Your task to perform on an android device: find photos in the google photos app Image 0: 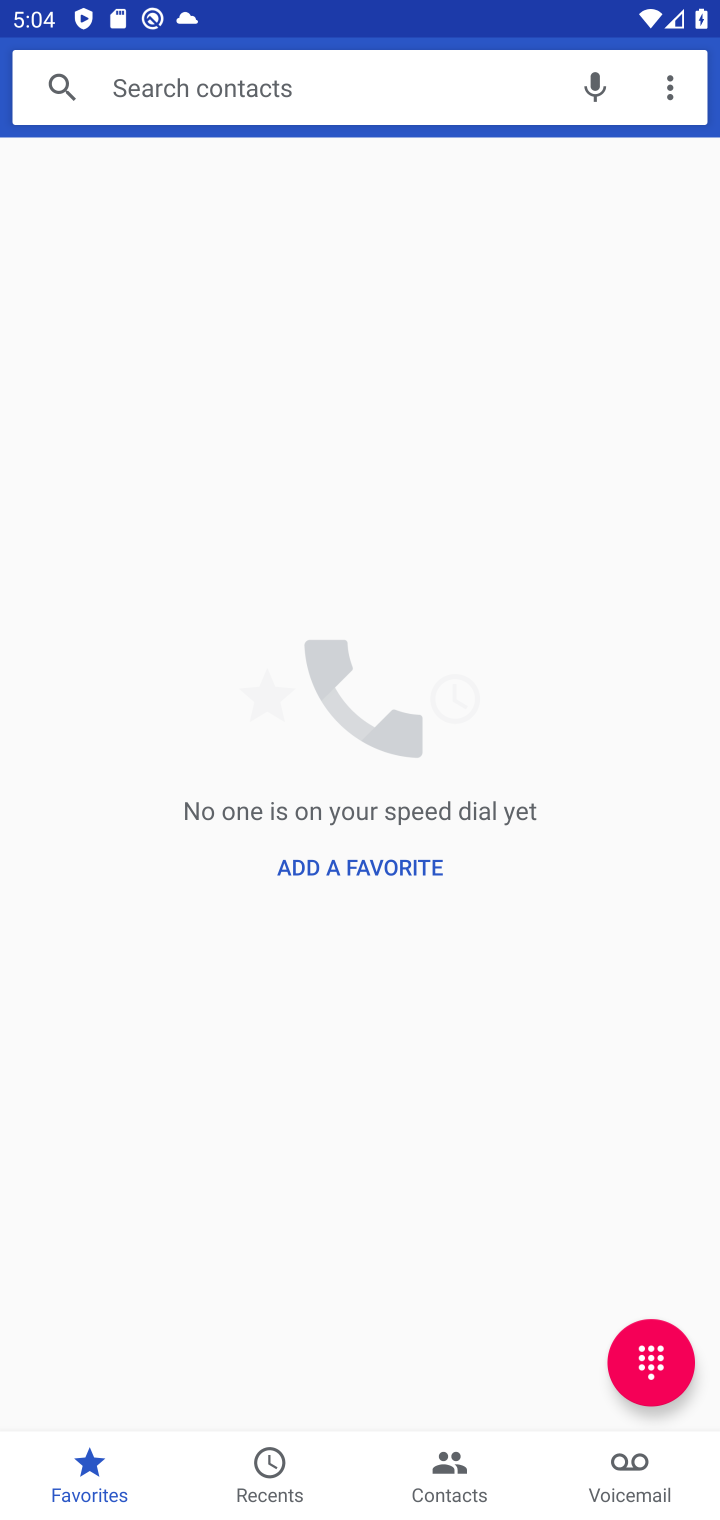
Step 0: press back button
Your task to perform on an android device: find photos in the google photos app Image 1: 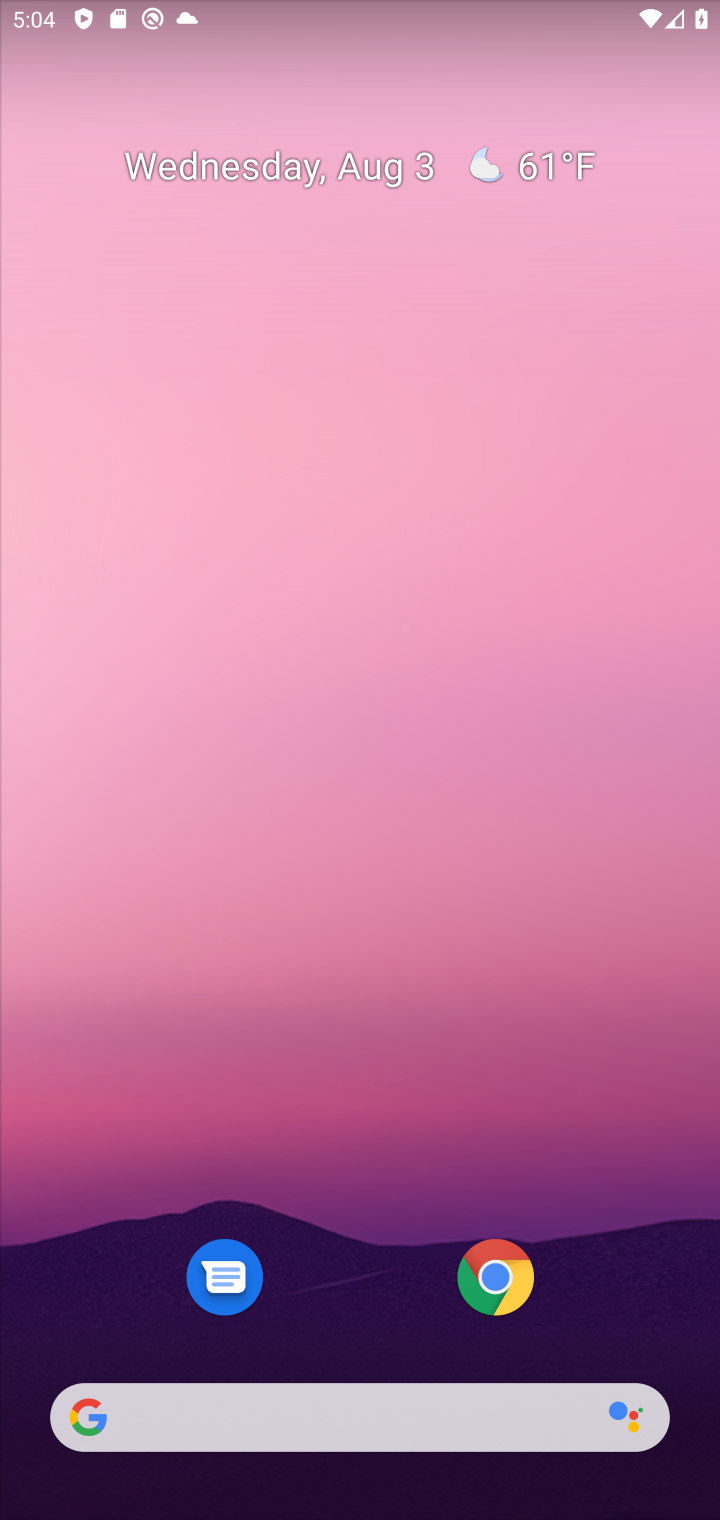
Step 1: drag from (239, 1283) to (463, 80)
Your task to perform on an android device: find photos in the google photos app Image 2: 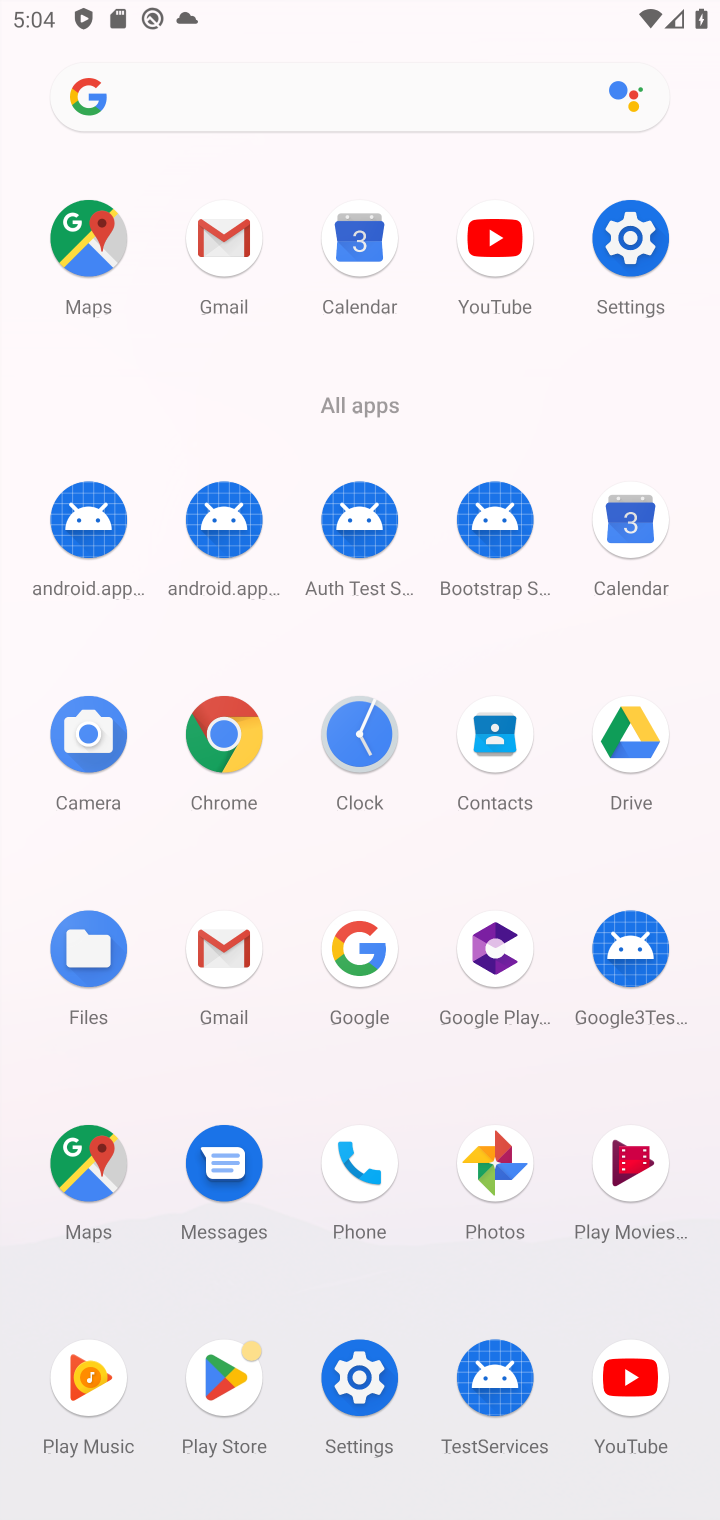
Step 2: click (101, 1156)
Your task to perform on an android device: find photos in the google photos app Image 3: 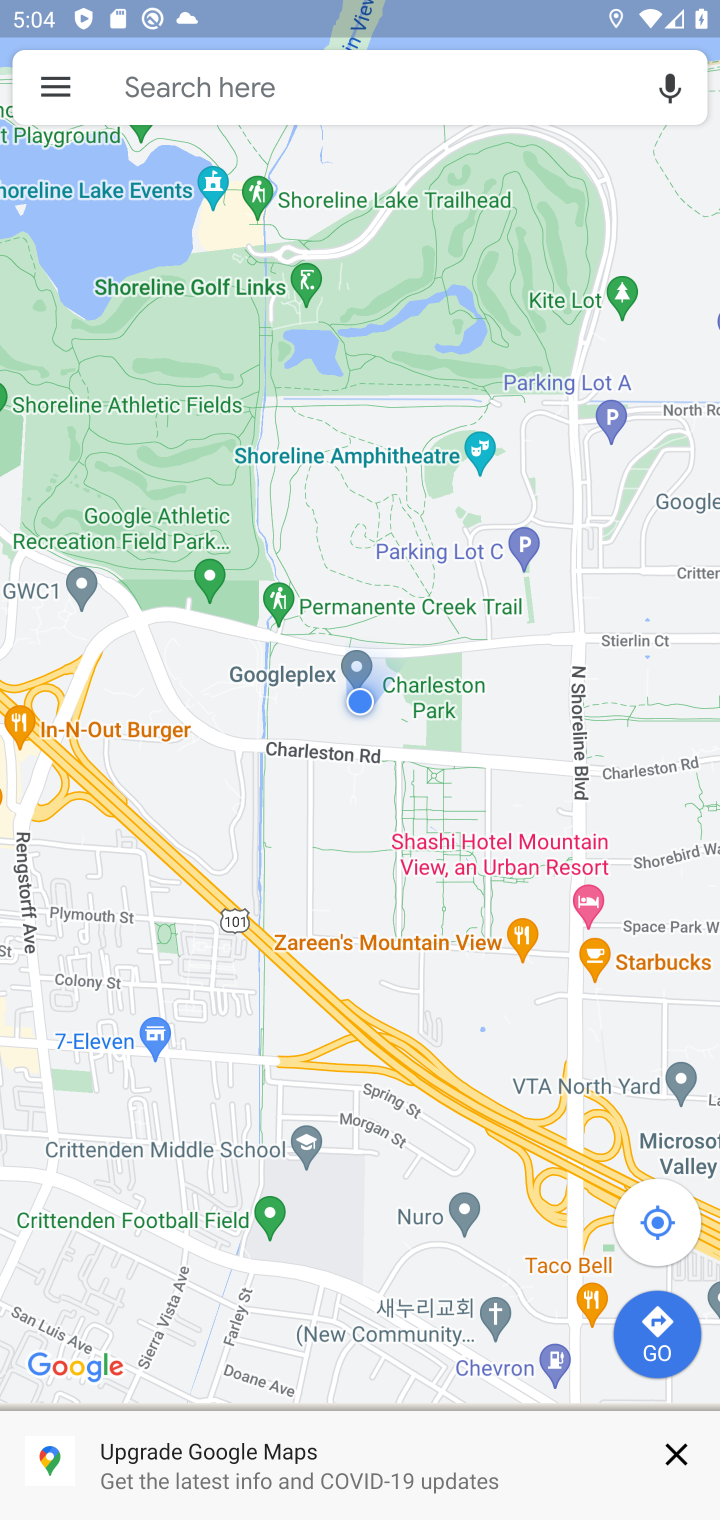
Step 3: press back button
Your task to perform on an android device: find photos in the google photos app Image 4: 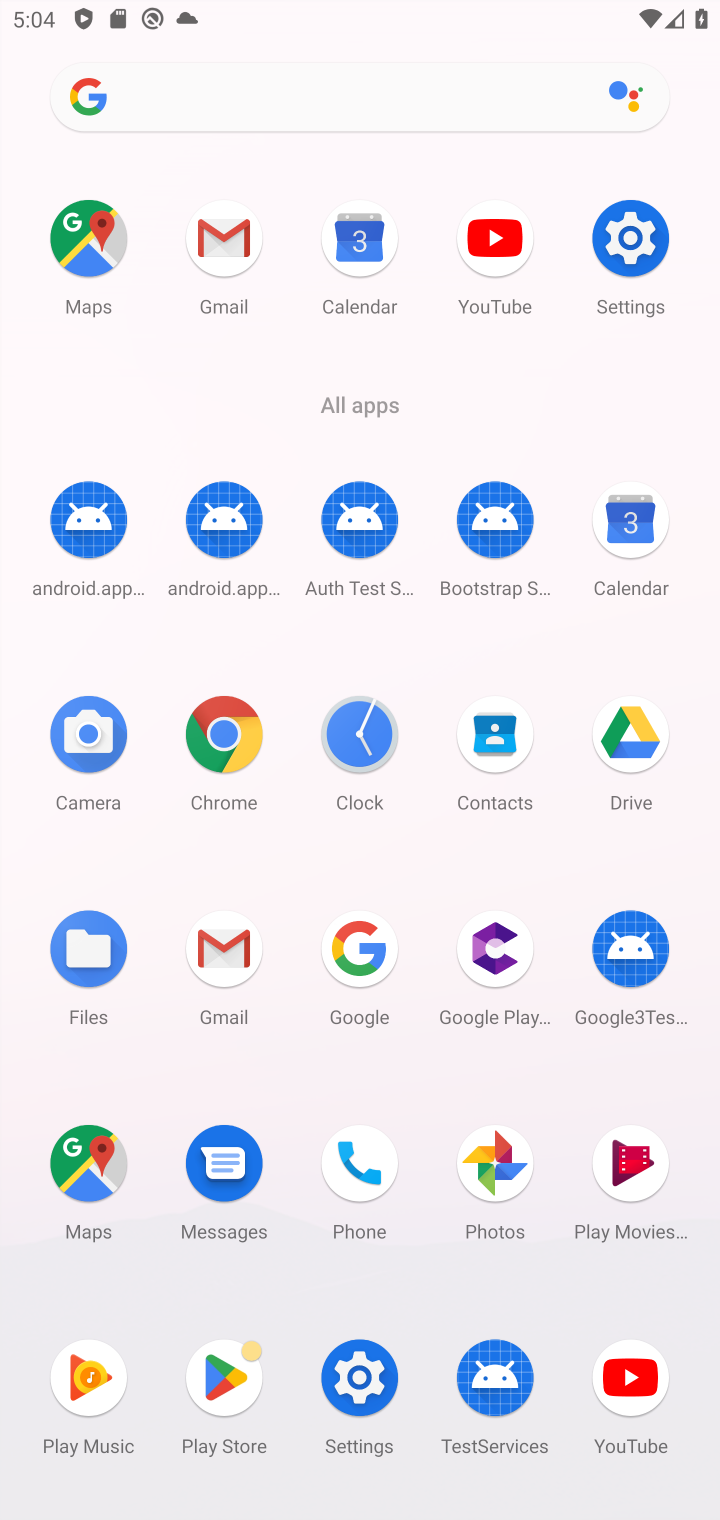
Step 4: click (486, 1158)
Your task to perform on an android device: find photos in the google photos app Image 5: 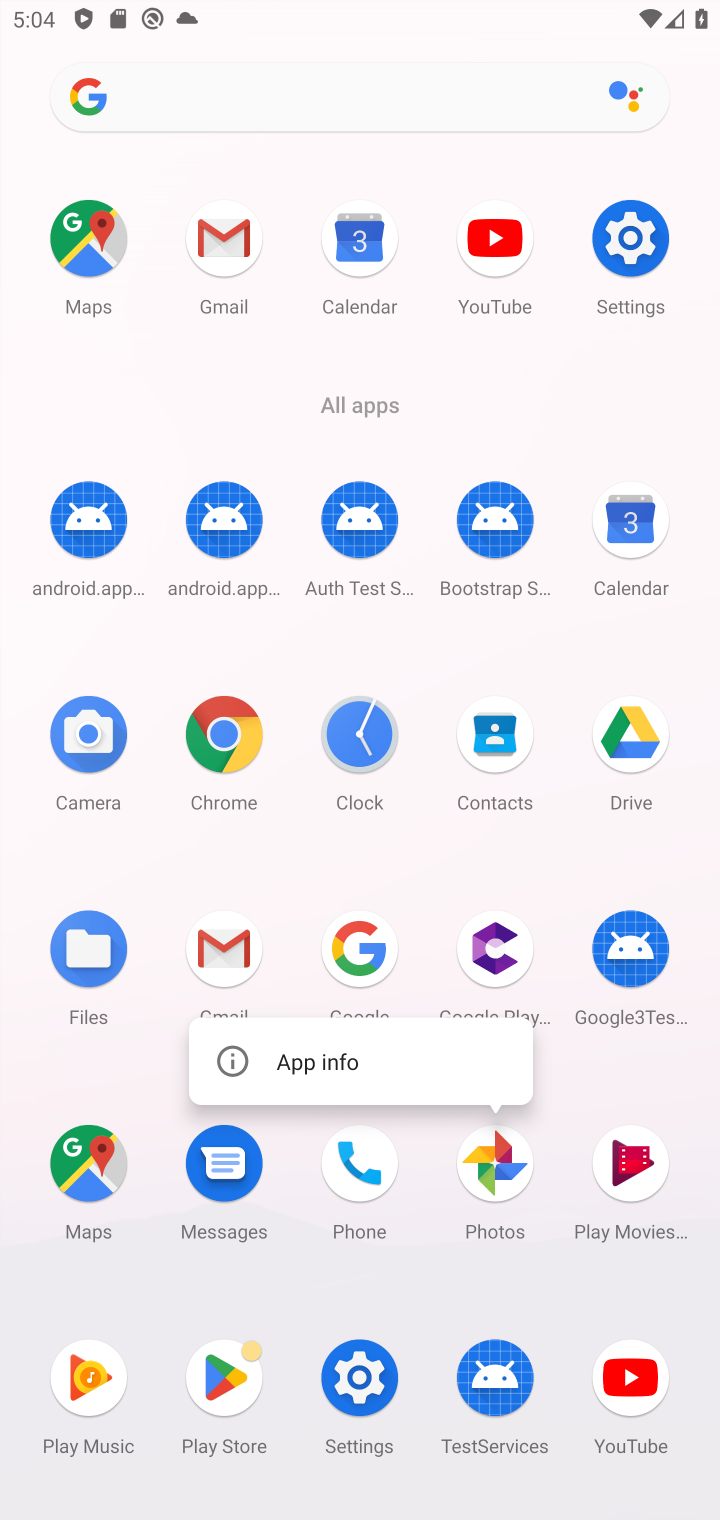
Step 5: click (477, 1156)
Your task to perform on an android device: find photos in the google photos app Image 6: 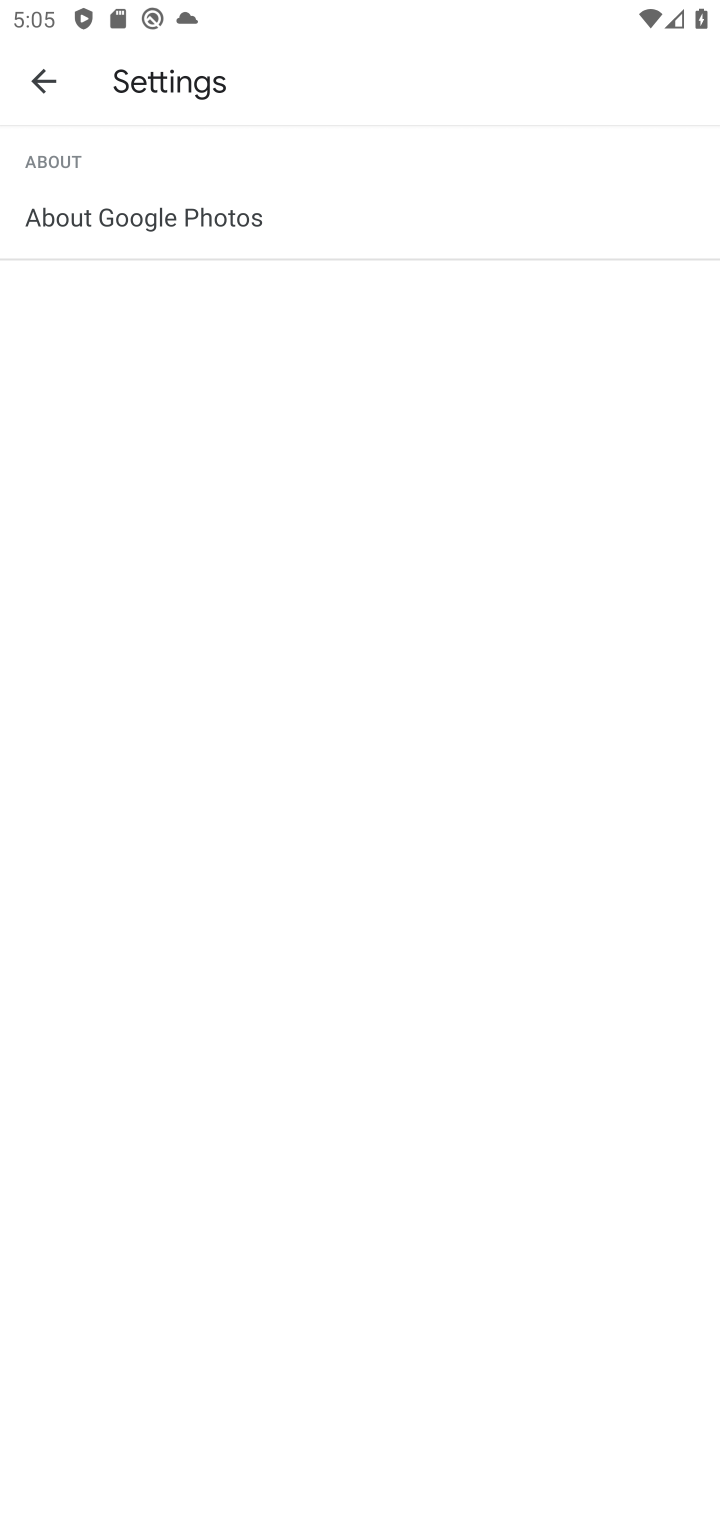
Step 6: click (44, 68)
Your task to perform on an android device: find photos in the google photos app Image 7: 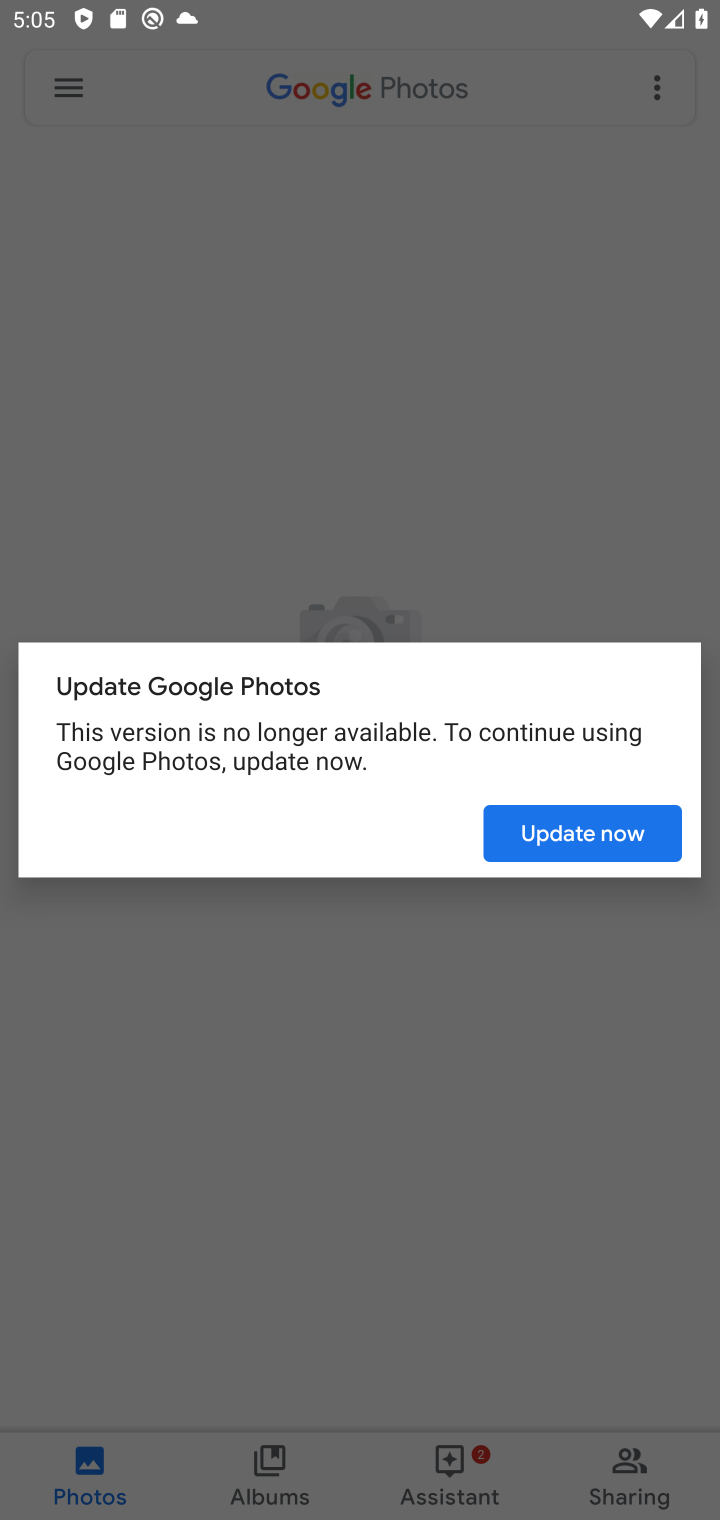
Step 7: click (584, 816)
Your task to perform on an android device: find photos in the google photos app Image 8: 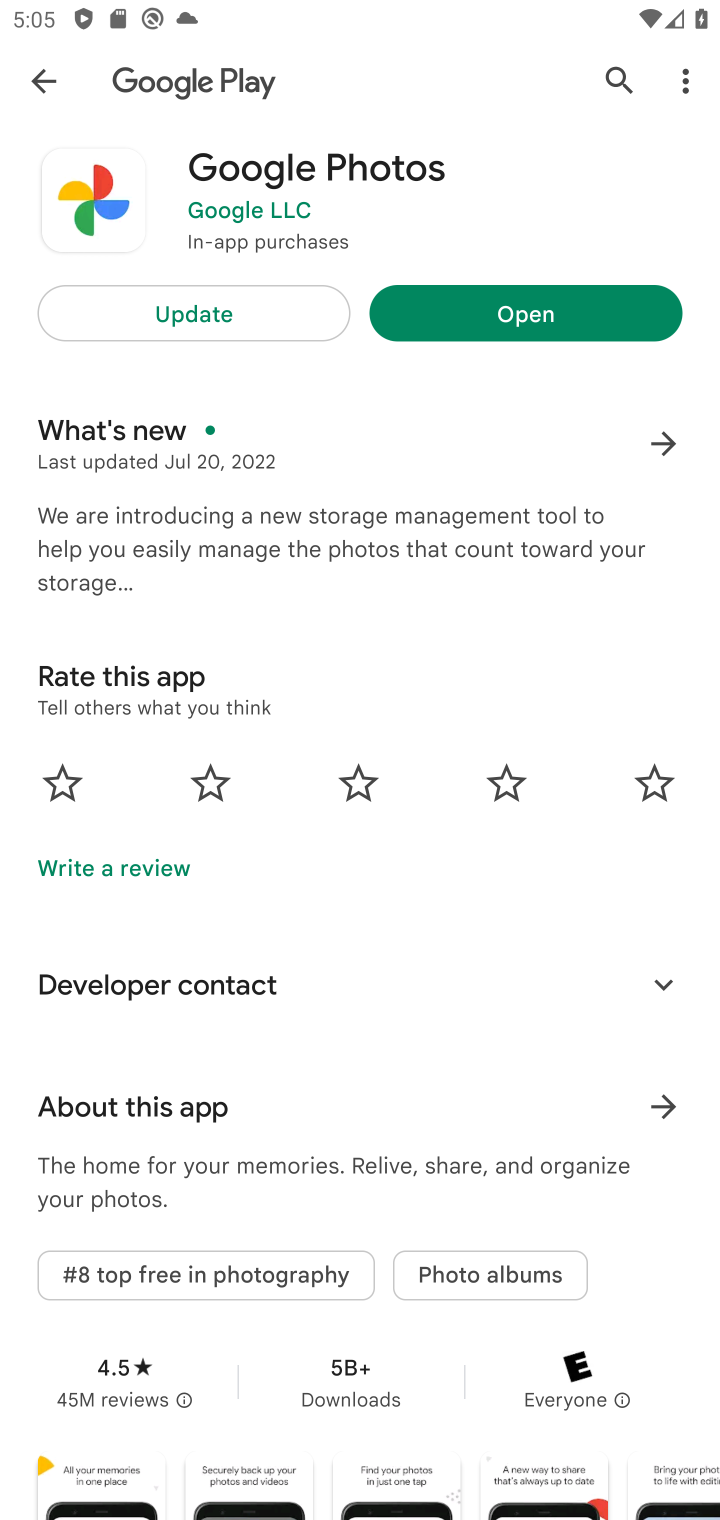
Step 8: click (502, 309)
Your task to perform on an android device: find photos in the google photos app Image 9: 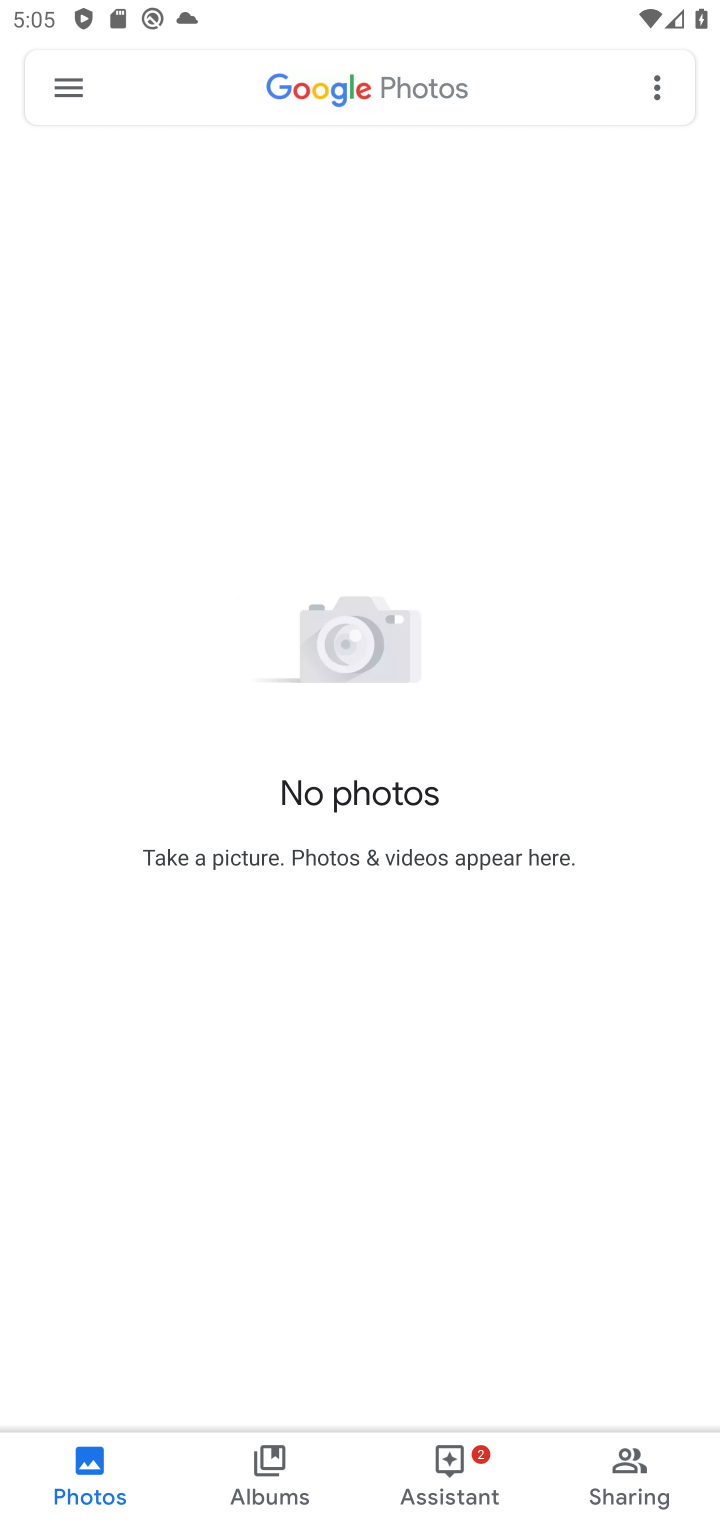
Step 9: click (94, 1466)
Your task to perform on an android device: find photos in the google photos app Image 10: 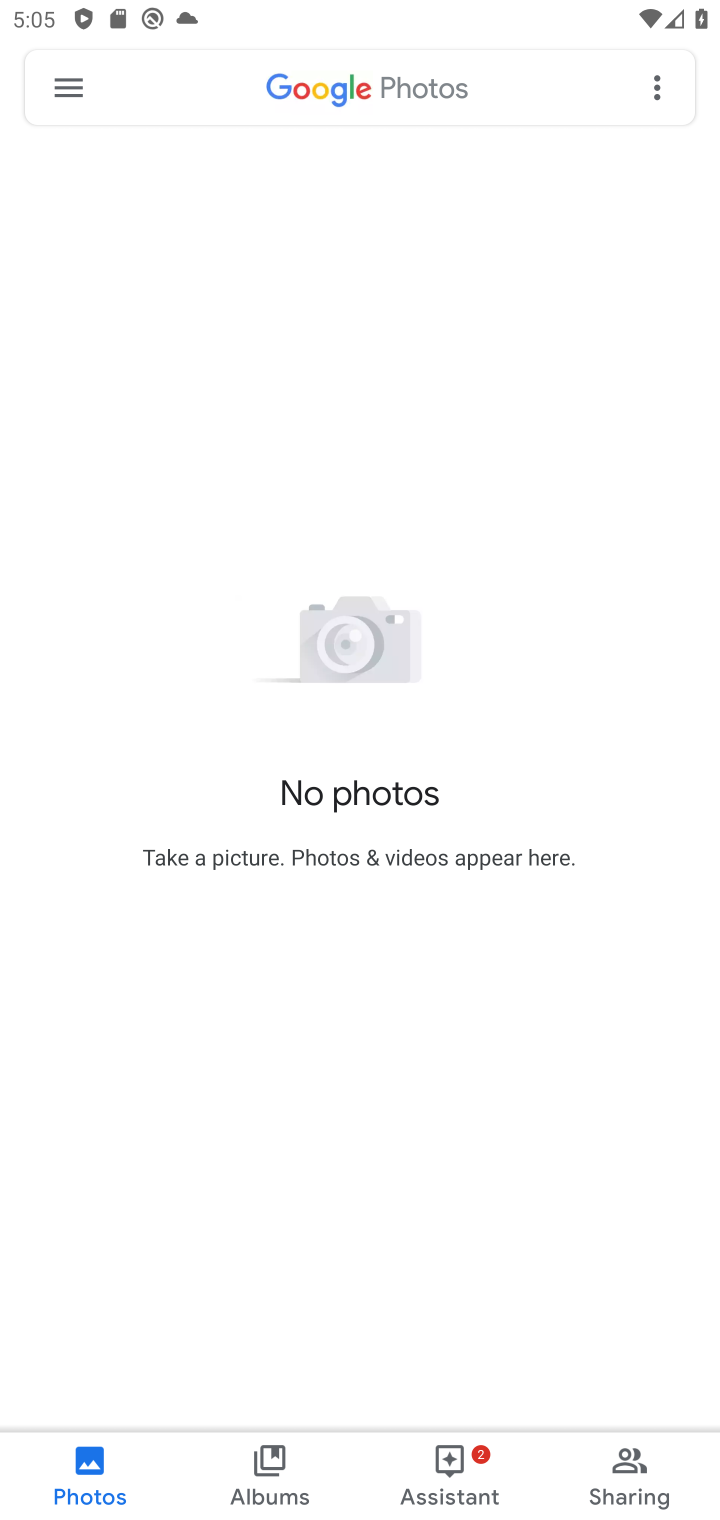
Step 10: task complete